Your task to perform on an android device: change the clock style Image 0: 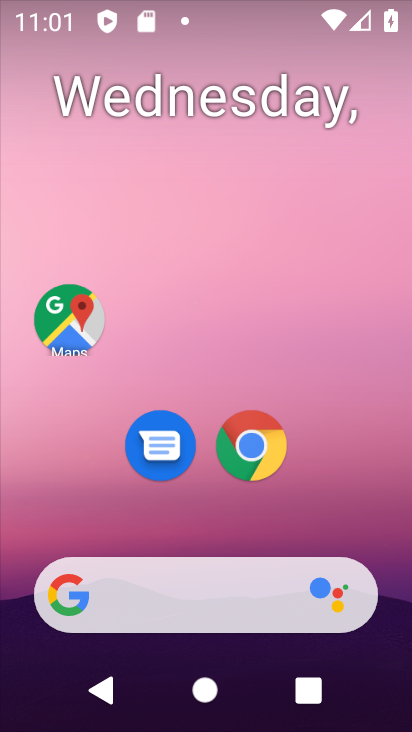
Step 0: drag from (199, 552) to (219, 228)
Your task to perform on an android device: change the clock style Image 1: 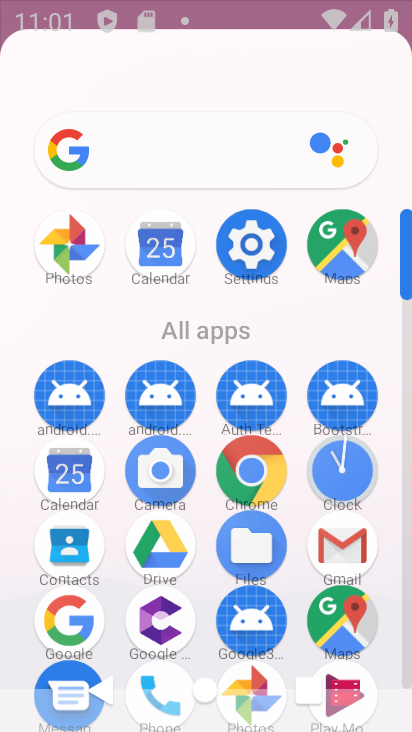
Step 1: click (219, 228)
Your task to perform on an android device: change the clock style Image 2: 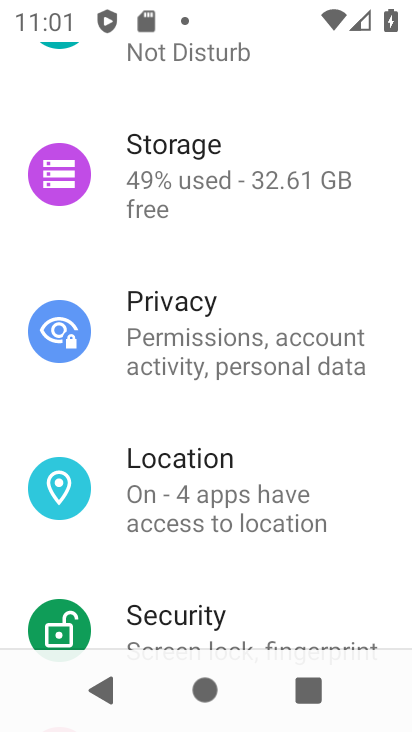
Step 2: press home button
Your task to perform on an android device: change the clock style Image 3: 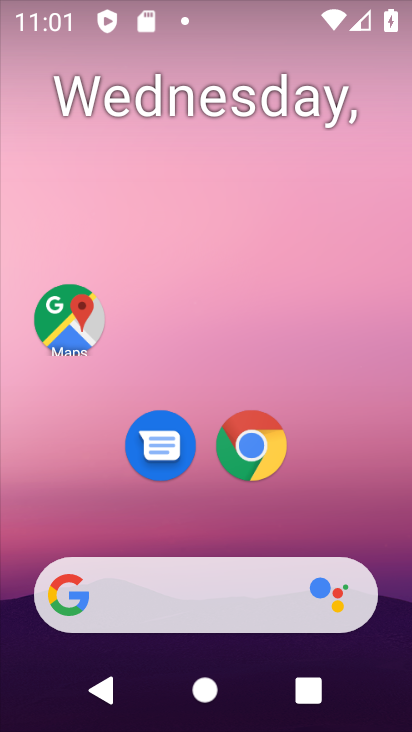
Step 3: drag from (253, 560) to (282, 57)
Your task to perform on an android device: change the clock style Image 4: 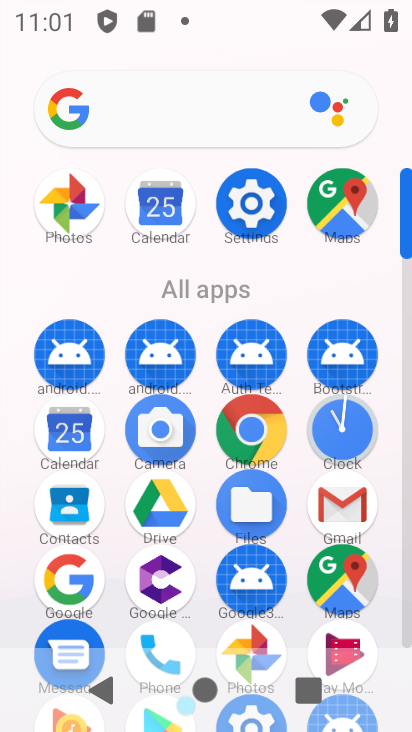
Step 4: click (334, 435)
Your task to perform on an android device: change the clock style Image 5: 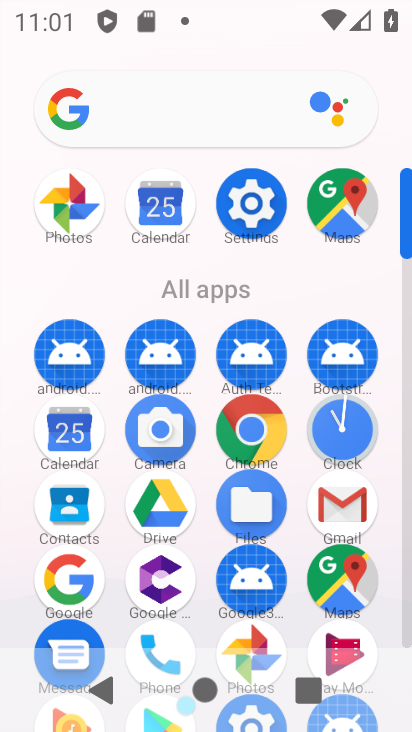
Step 5: click (334, 435)
Your task to perform on an android device: change the clock style Image 6: 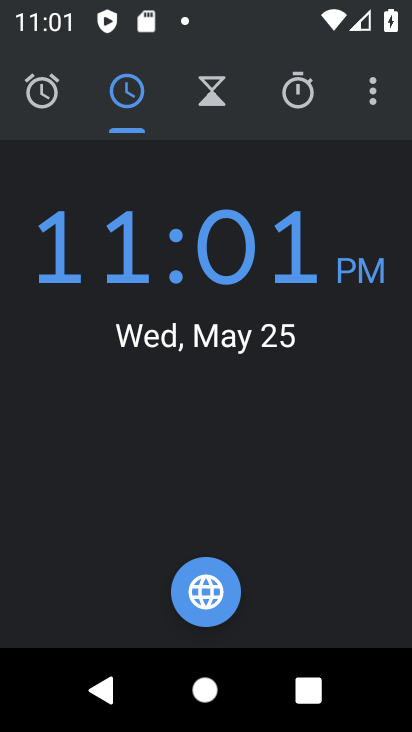
Step 6: click (369, 88)
Your task to perform on an android device: change the clock style Image 7: 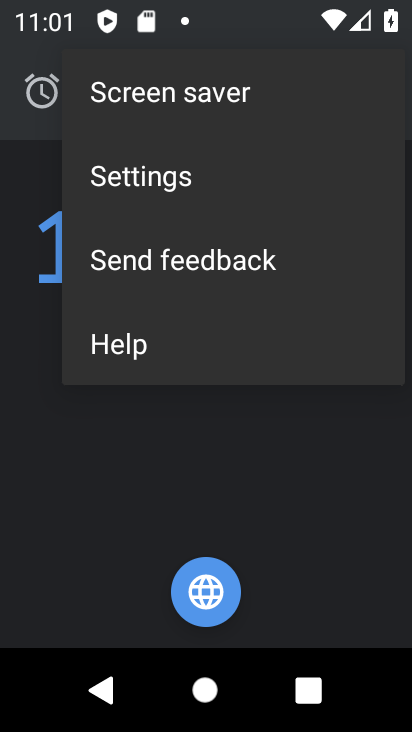
Step 7: click (197, 179)
Your task to perform on an android device: change the clock style Image 8: 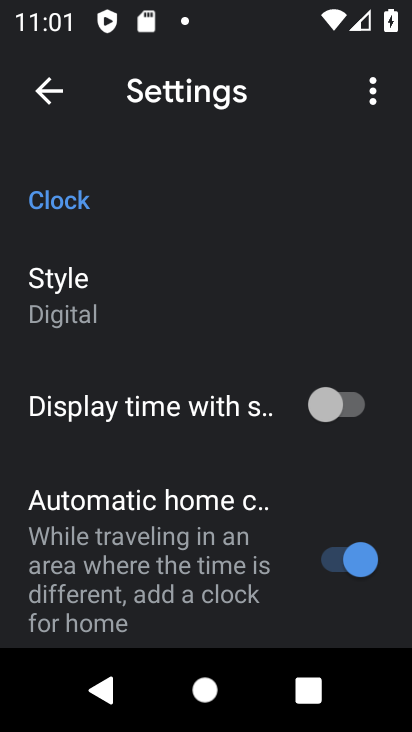
Step 8: click (58, 301)
Your task to perform on an android device: change the clock style Image 9: 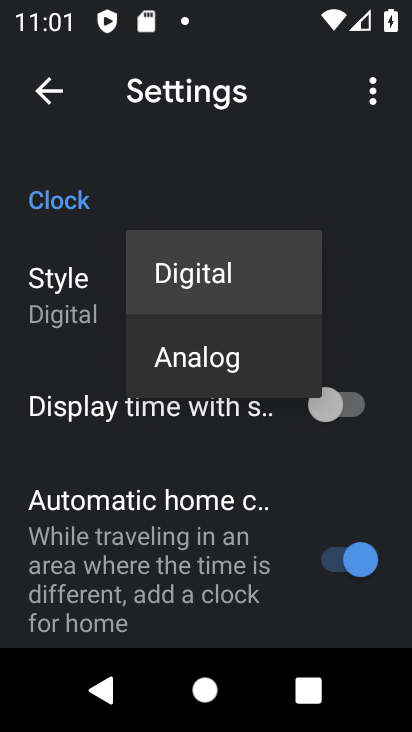
Step 9: click (178, 364)
Your task to perform on an android device: change the clock style Image 10: 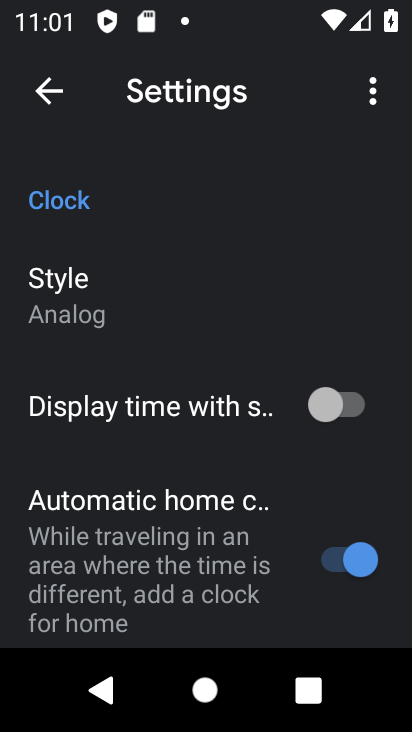
Step 10: task complete